Your task to perform on an android device: What's the weather going to be this weekend? Image 0: 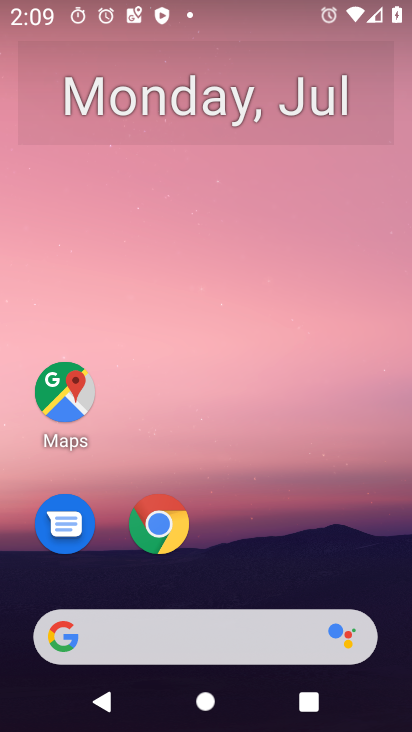
Step 0: press home button
Your task to perform on an android device: What's the weather going to be this weekend? Image 1: 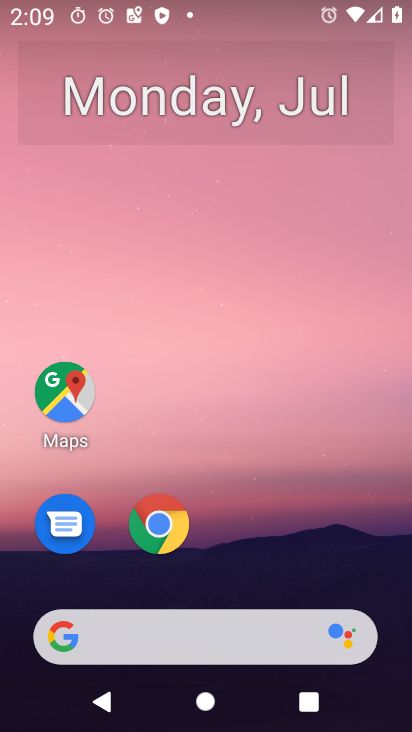
Step 1: click (66, 648)
Your task to perform on an android device: What's the weather going to be this weekend? Image 2: 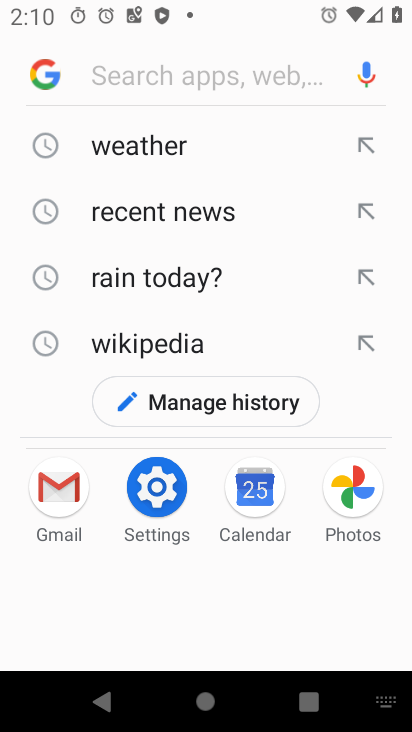
Step 2: type "weather going to be this weekend?"
Your task to perform on an android device: What's the weather going to be this weekend? Image 3: 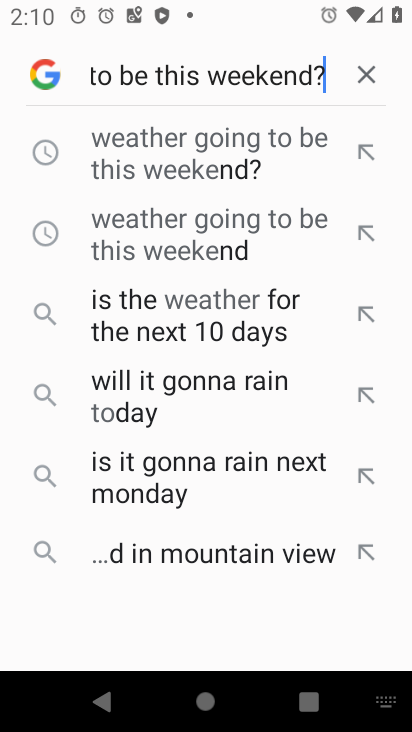
Step 3: press enter
Your task to perform on an android device: What's the weather going to be this weekend? Image 4: 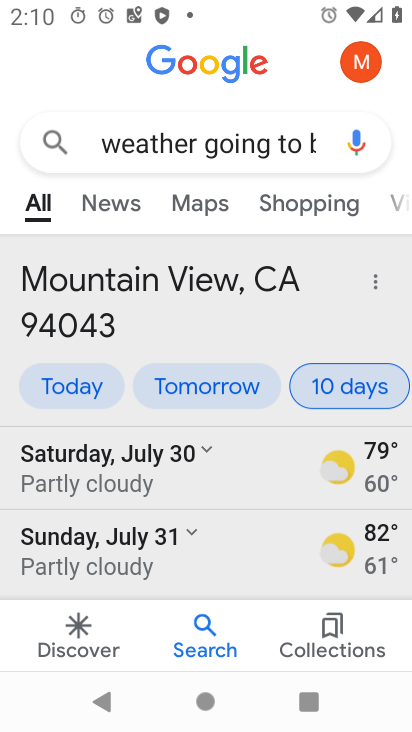
Step 4: task complete